Your task to perform on an android device: Go to CNN.com Image 0: 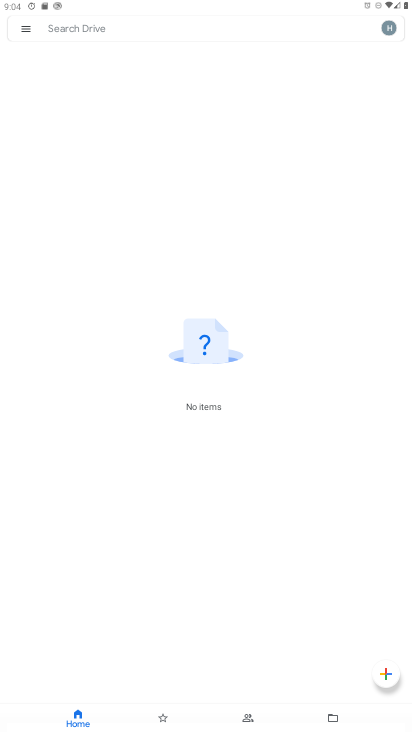
Step 0: press home button
Your task to perform on an android device: Go to CNN.com Image 1: 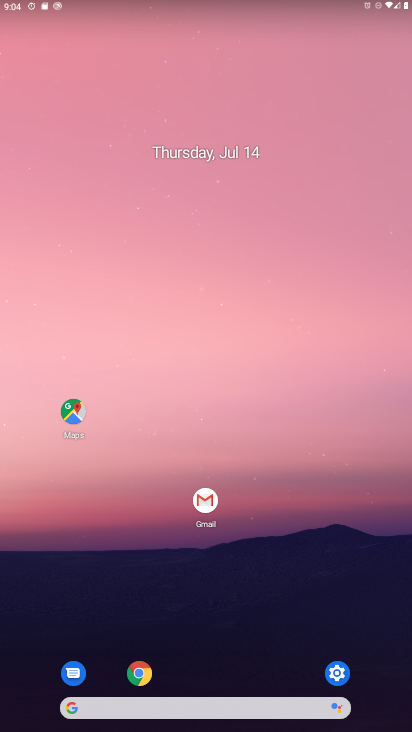
Step 1: click (146, 668)
Your task to perform on an android device: Go to CNN.com Image 2: 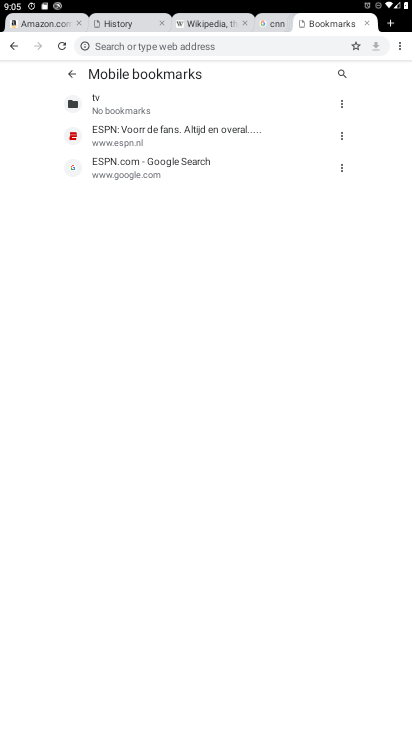
Step 2: click (391, 24)
Your task to perform on an android device: Go to CNN.com Image 3: 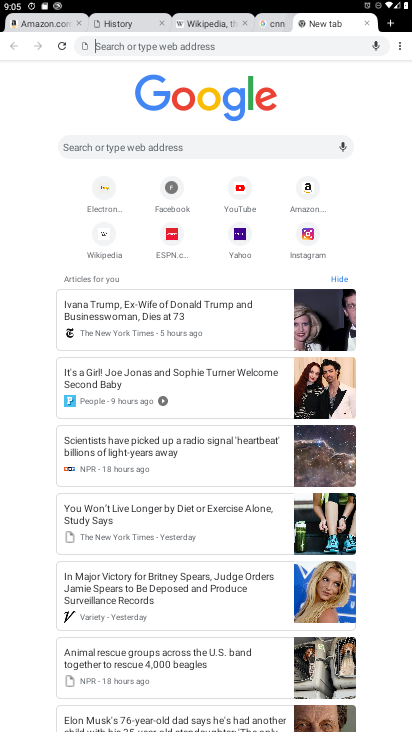
Step 3: click (135, 141)
Your task to perform on an android device: Go to CNN.com Image 4: 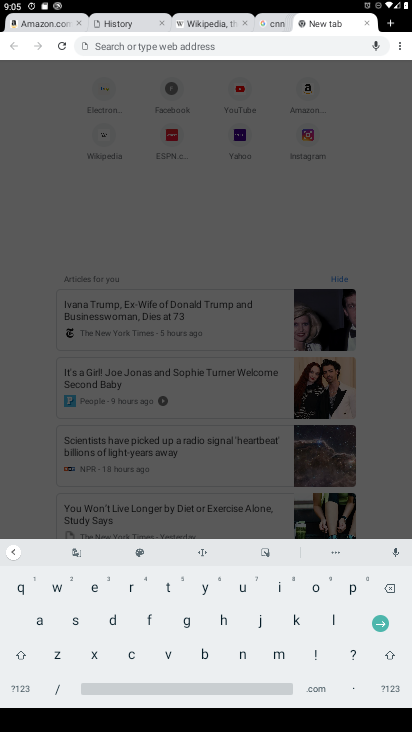
Step 4: click (132, 653)
Your task to perform on an android device: Go to CNN.com Image 5: 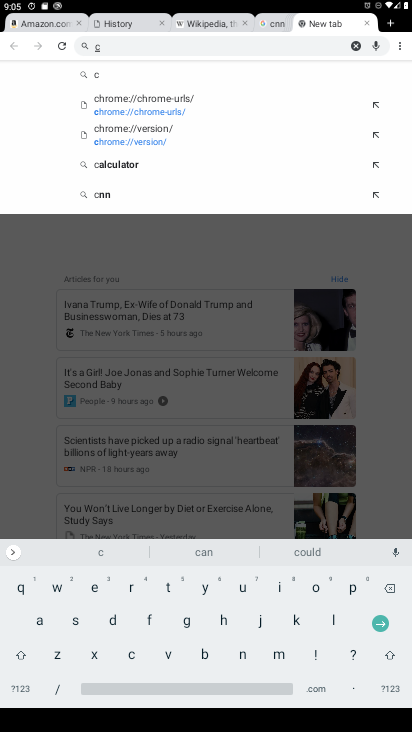
Step 5: click (244, 655)
Your task to perform on an android device: Go to CNN.com Image 6: 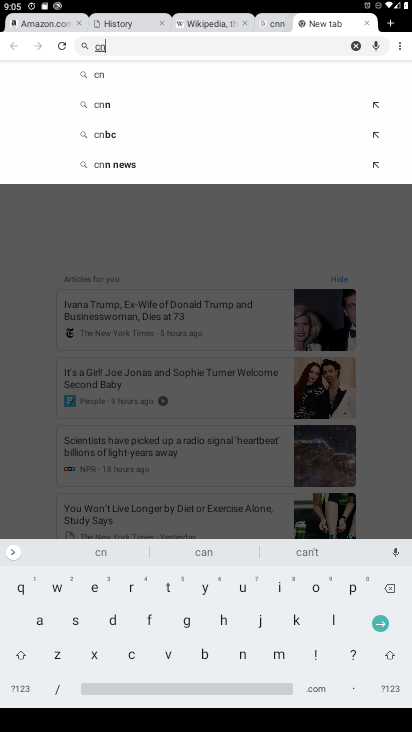
Step 6: click (244, 655)
Your task to perform on an android device: Go to CNN.com Image 7: 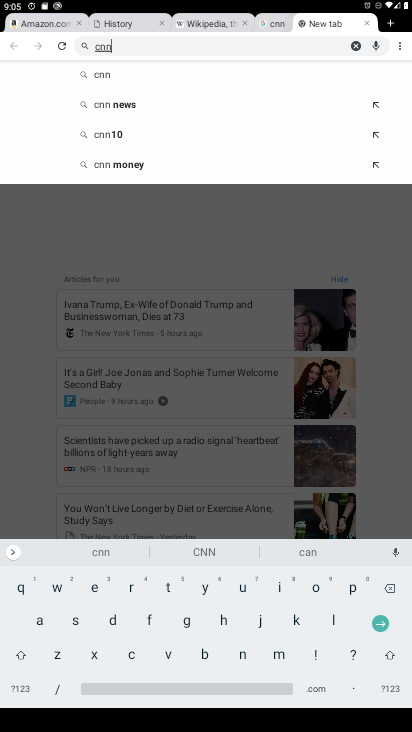
Step 7: click (97, 78)
Your task to perform on an android device: Go to CNN.com Image 8: 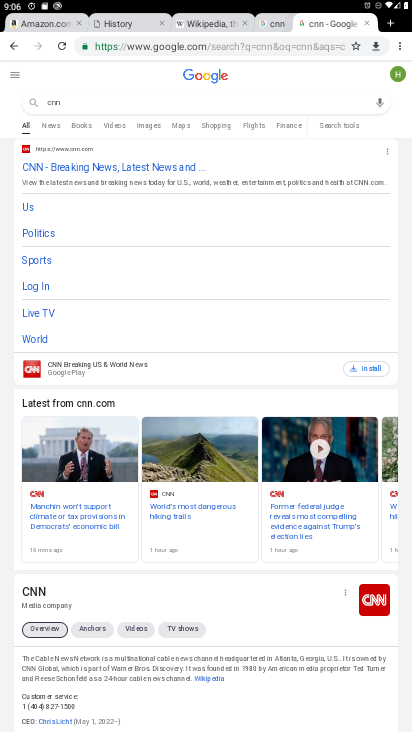
Step 8: click (85, 175)
Your task to perform on an android device: Go to CNN.com Image 9: 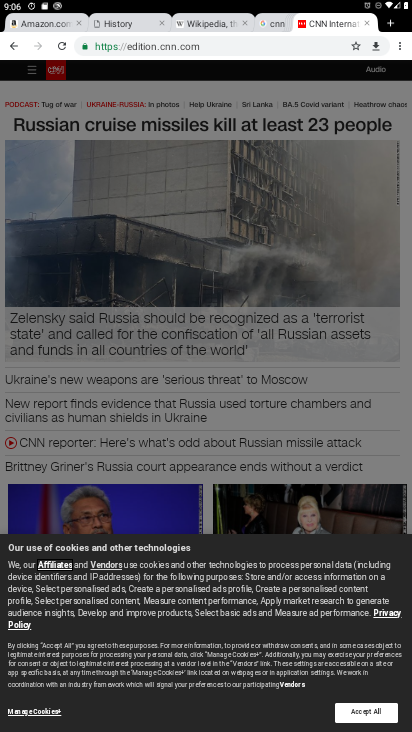
Step 9: task complete